Your task to perform on an android device: find which apps use the phone's location Image 0: 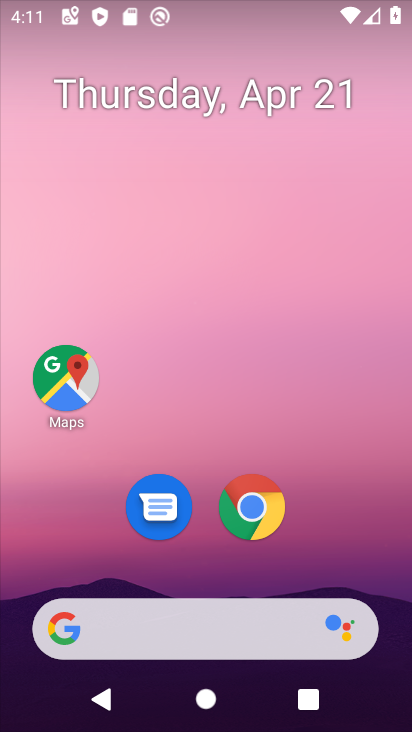
Step 0: drag from (335, 554) to (364, 211)
Your task to perform on an android device: find which apps use the phone's location Image 1: 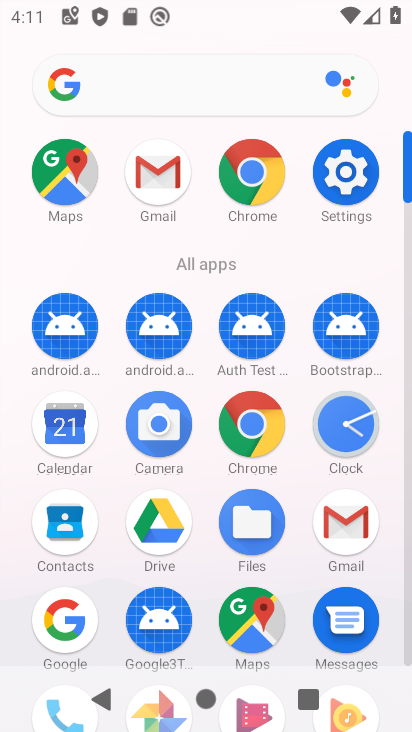
Step 1: click (343, 175)
Your task to perform on an android device: find which apps use the phone's location Image 2: 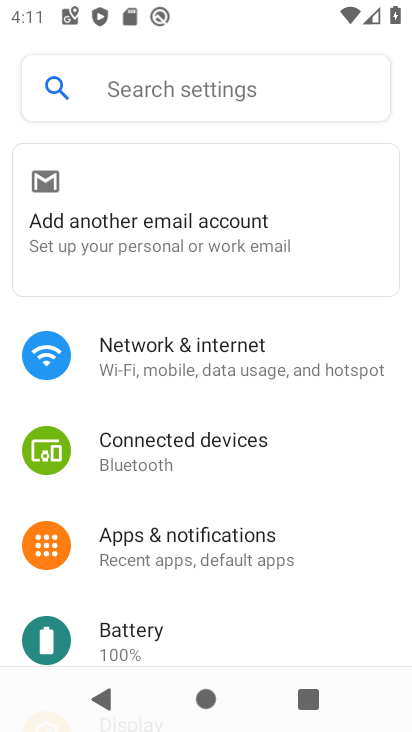
Step 2: drag from (247, 597) to (291, 325)
Your task to perform on an android device: find which apps use the phone's location Image 3: 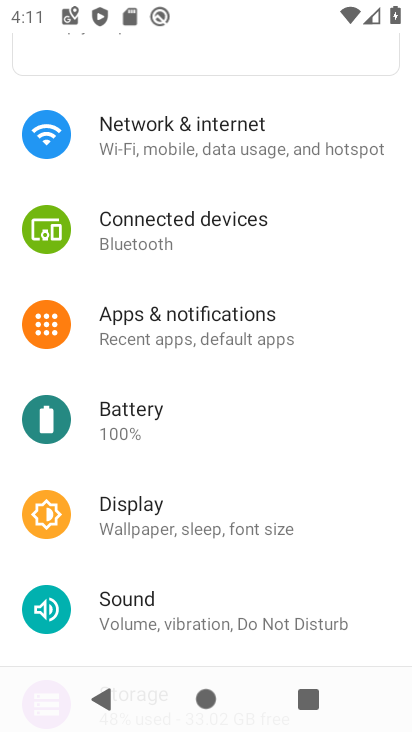
Step 3: drag from (274, 569) to (250, 381)
Your task to perform on an android device: find which apps use the phone's location Image 4: 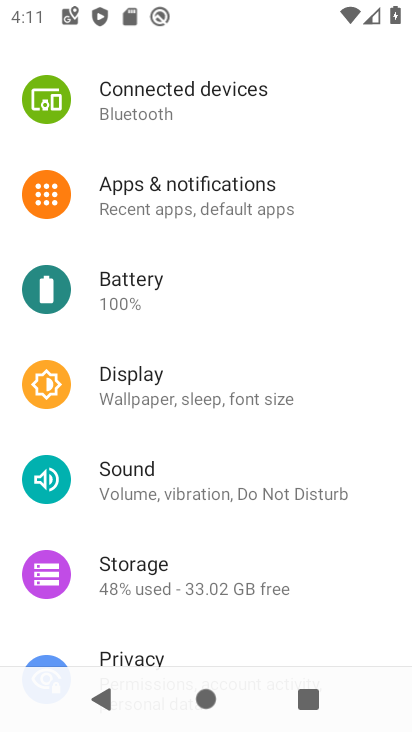
Step 4: drag from (263, 537) to (241, 206)
Your task to perform on an android device: find which apps use the phone's location Image 5: 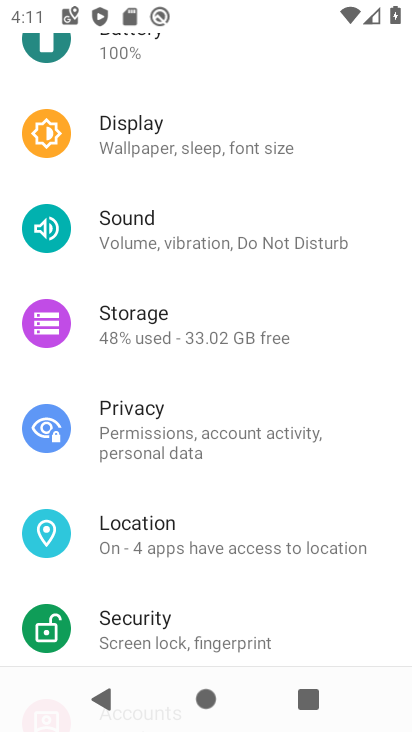
Step 5: click (256, 536)
Your task to perform on an android device: find which apps use the phone's location Image 6: 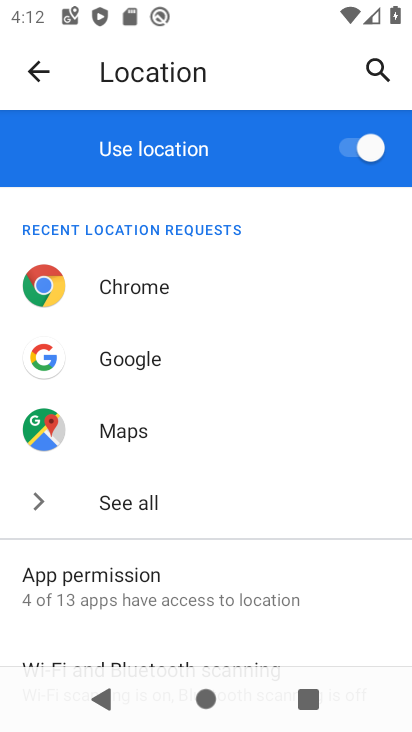
Step 6: click (219, 603)
Your task to perform on an android device: find which apps use the phone's location Image 7: 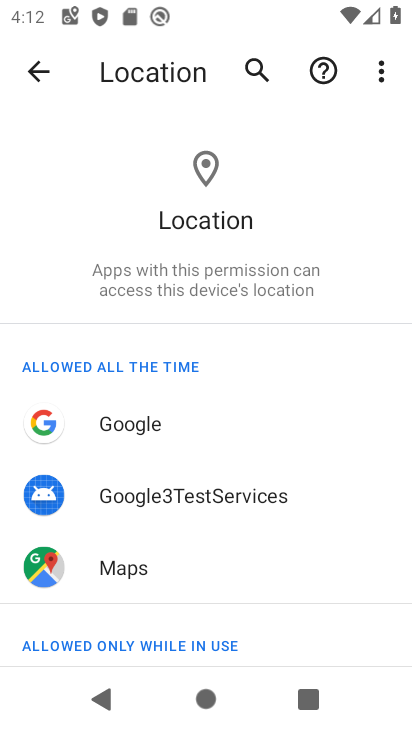
Step 7: drag from (273, 323) to (259, 184)
Your task to perform on an android device: find which apps use the phone's location Image 8: 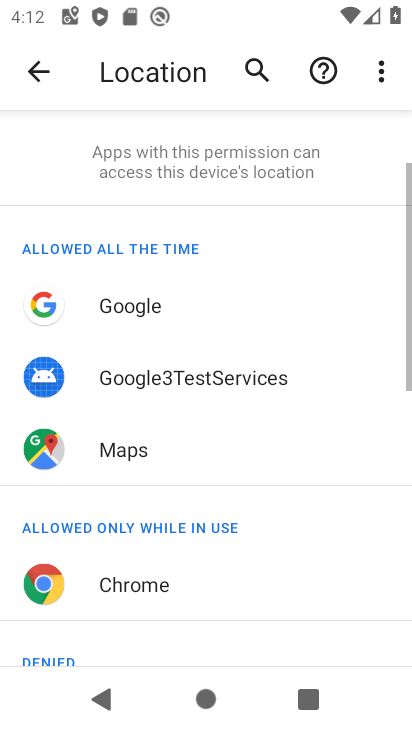
Step 8: click (259, 184)
Your task to perform on an android device: find which apps use the phone's location Image 9: 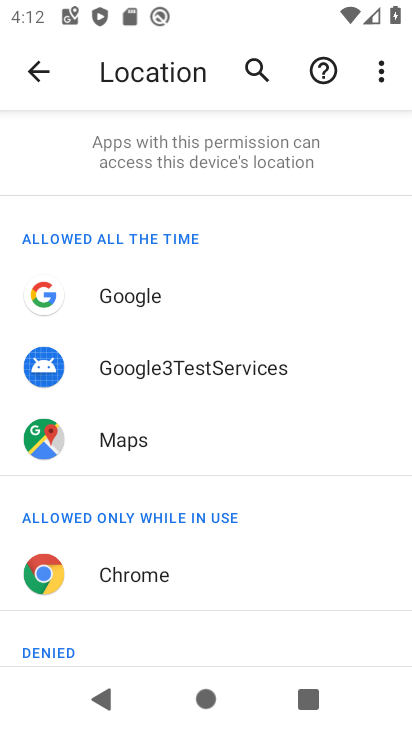
Step 9: task complete